Your task to perform on an android device: turn off priority inbox in the gmail app Image 0: 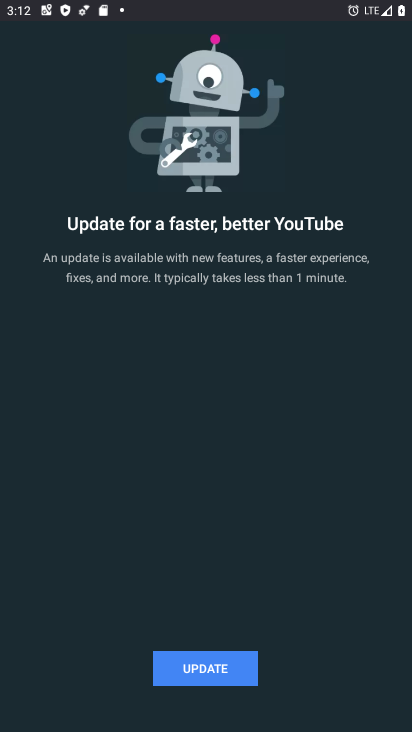
Step 0: press back button
Your task to perform on an android device: turn off priority inbox in the gmail app Image 1: 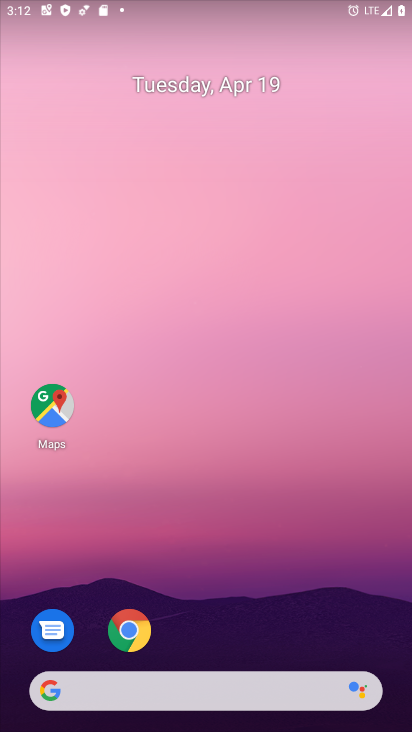
Step 1: drag from (210, 716) to (210, 16)
Your task to perform on an android device: turn off priority inbox in the gmail app Image 2: 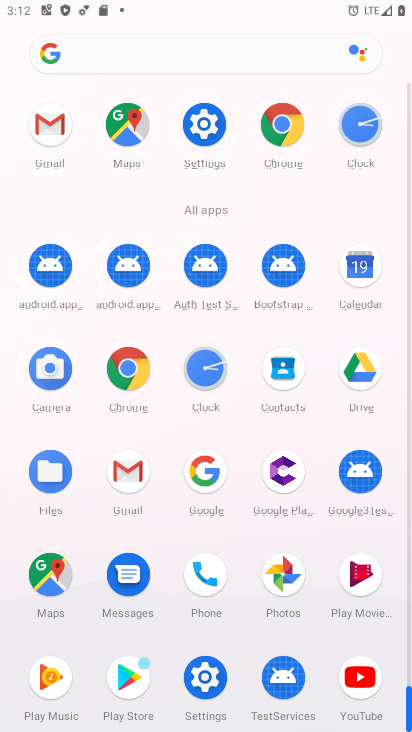
Step 2: click (48, 123)
Your task to perform on an android device: turn off priority inbox in the gmail app Image 3: 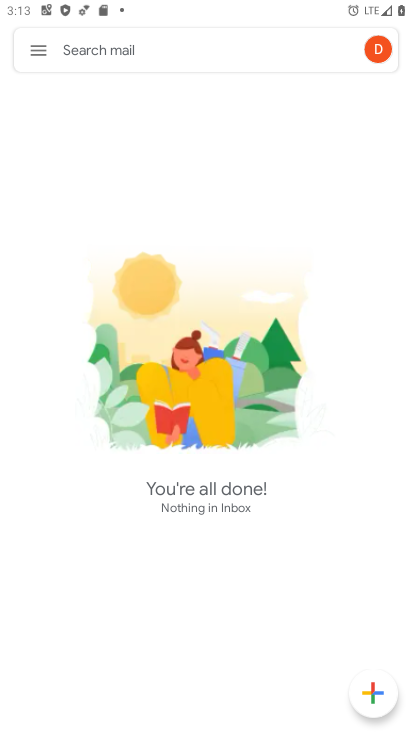
Step 3: click (40, 54)
Your task to perform on an android device: turn off priority inbox in the gmail app Image 4: 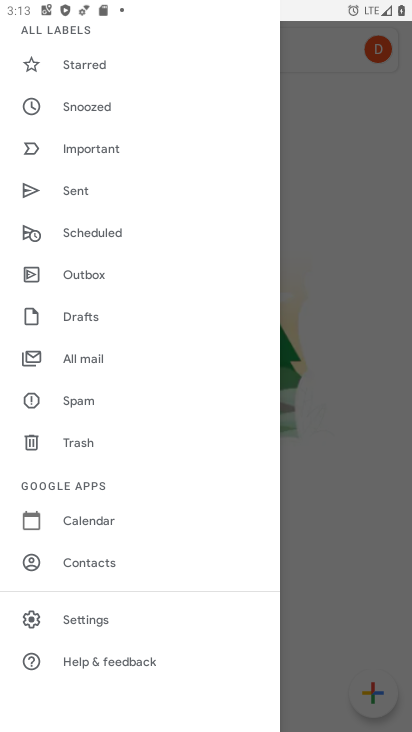
Step 4: click (89, 618)
Your task to perform on an android device: turn off priority inbox in the gmail app Image 5: 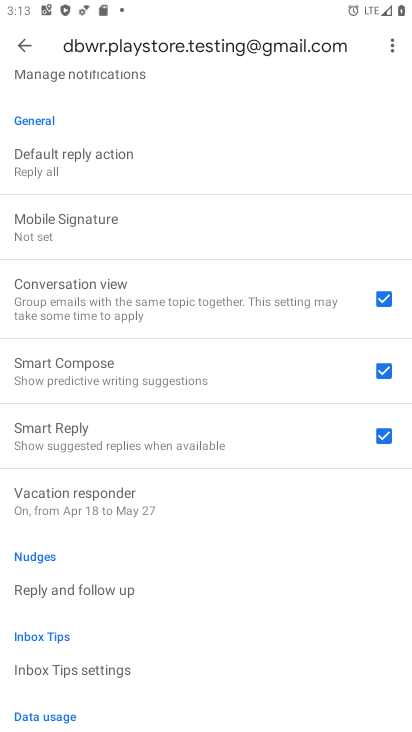
Step 5: drag from (177, 144) to (178, 567)
Your task to perform on an android device: turn off priority inbox in the gmail app Image 6: 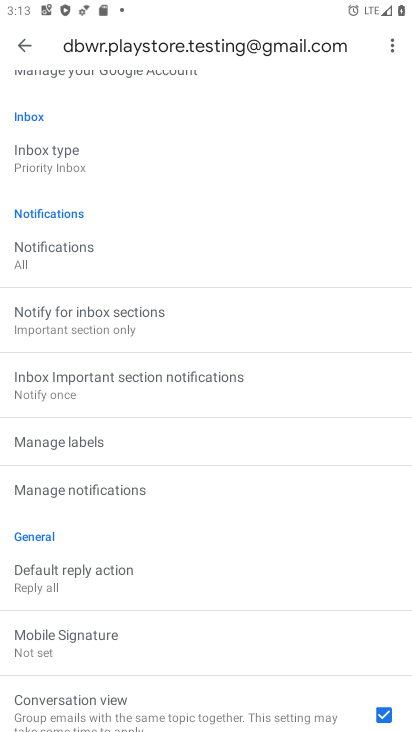
Step 6: drag from (222, 157) to (221, 579)
Your task to perform on an android device: turn off priority inbox in the gmail app Image 7: 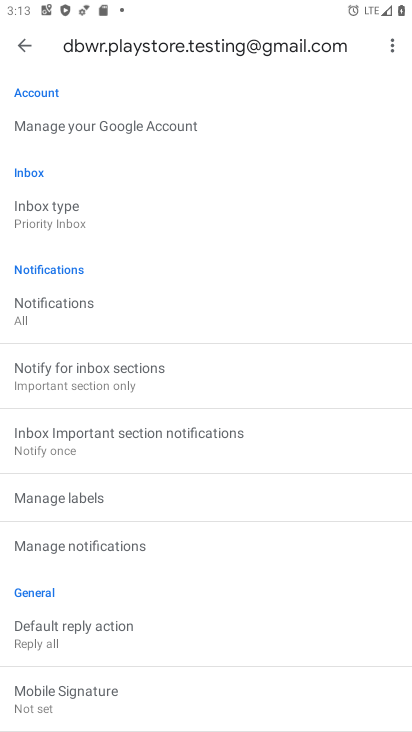
Step 7: click (67, 213)
Your task to perform on an android device: turn off priority inbox in the gmail app Image 8: 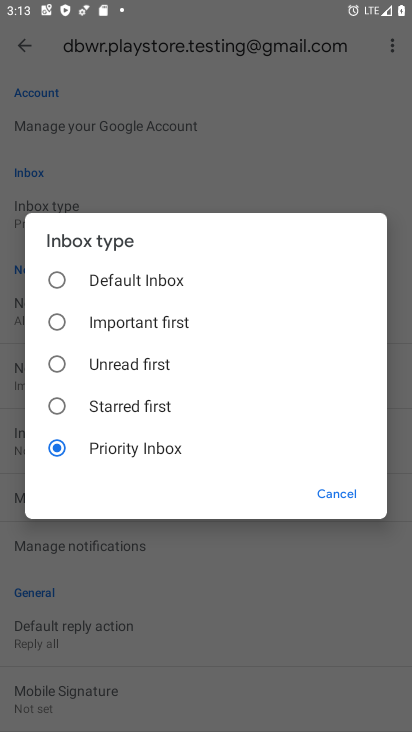
Step 8: click (58, 279)
Your task to perform on an android device: turn off priority inbox in the gmail app Image 9: 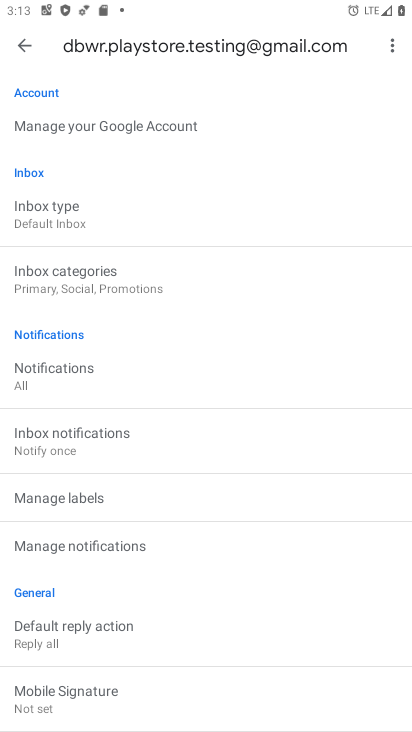
Step 9: task complete